Your task to perform on an android device: Go to display settings Image 0: 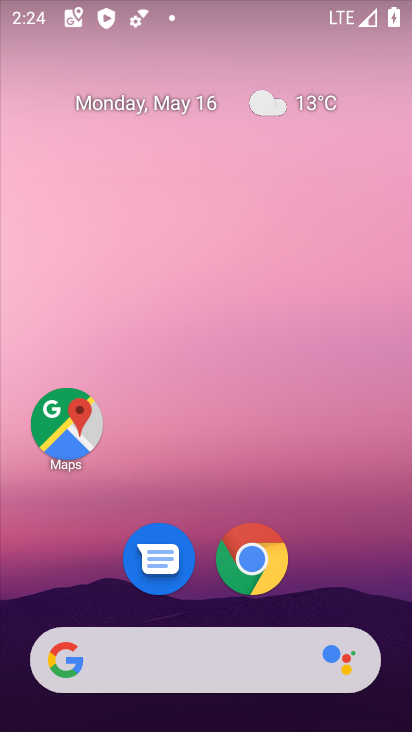
Step 0: drag from (135, 579) to (220, 68)
Your task to perform on an android device: Go to display settings Image 1: 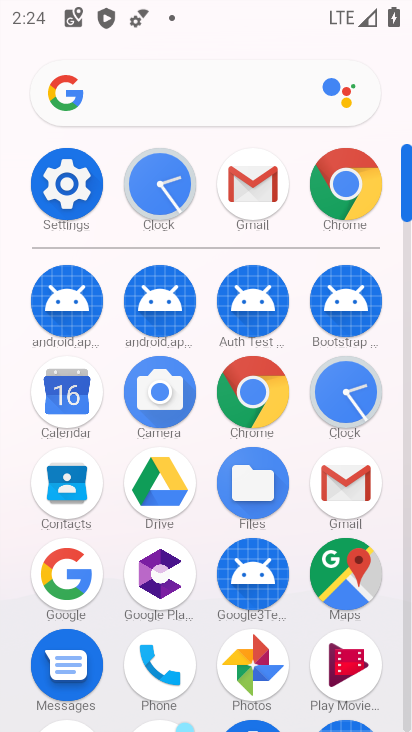
Step 1: click (54, 191)
Your task to perform on an android device: Go to display settings Image 2: 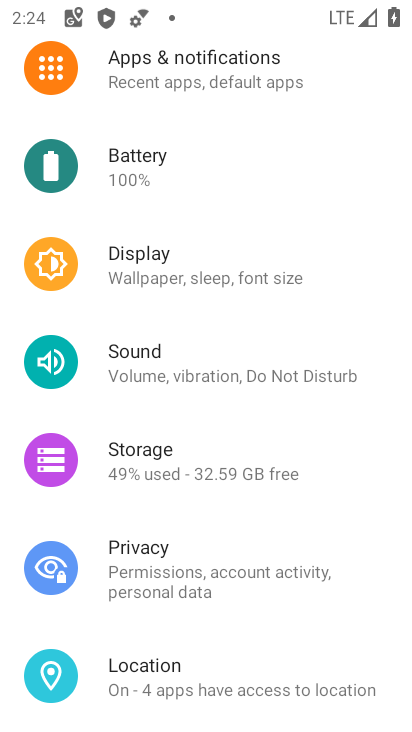
Step 2: click (156, 261)
Your task to perform on an android device: Go to display settings Image 3: 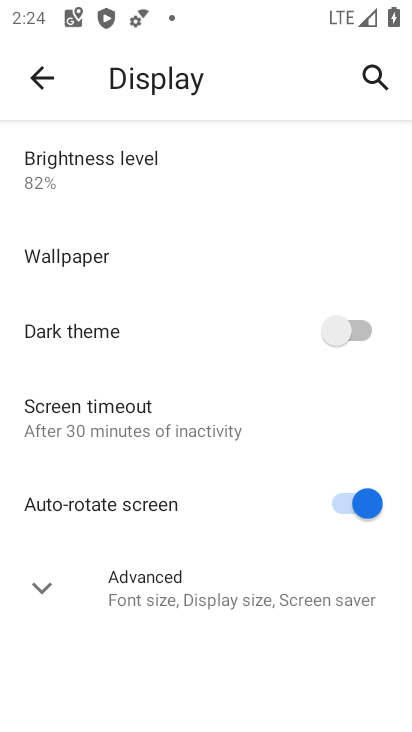
Step 3: task complete